Your task to perform on an android device: Go to Google maps Image 0: 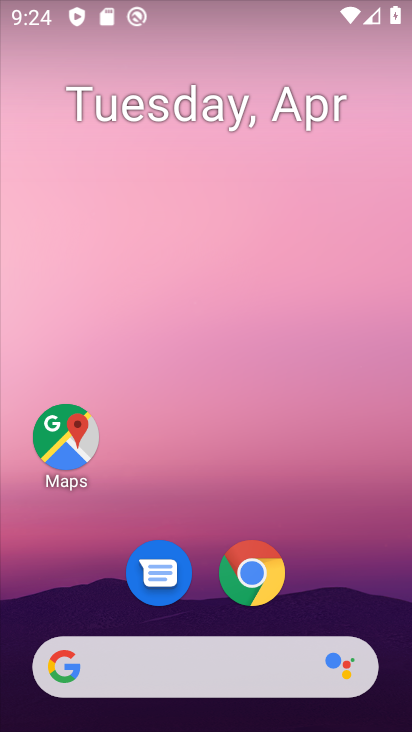
Step 0: click (63, 440)
Your task to perform on an android device: Go to Google maps Image 1: 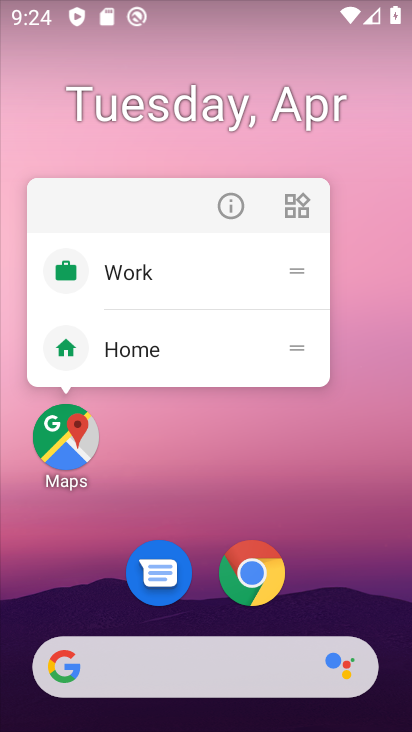
Step 1: click (58, 440)
Your task to perform on an android device: Go to Google maps Image 2: 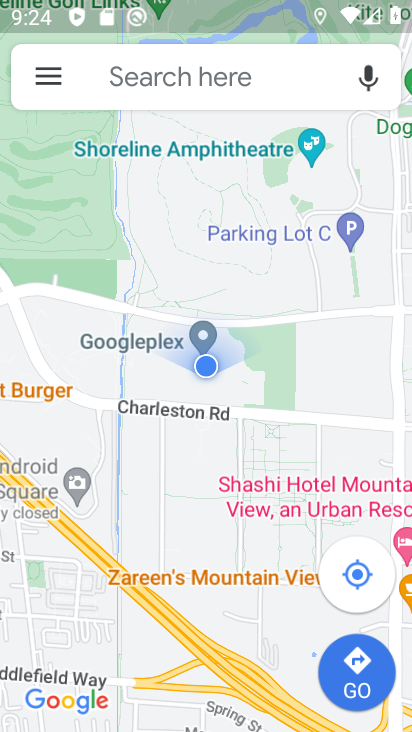
Step 2: task complete